Your task to perform on an android device: Open battery settings Image 0: 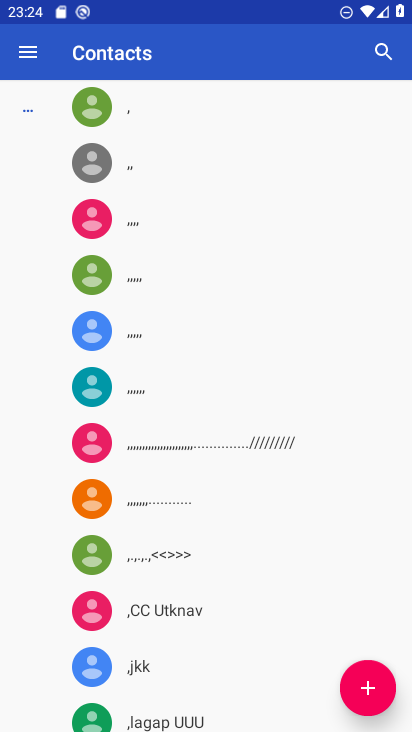
Step 0: press home button
Your task to perform on an android device: Open battery settings Image 1: 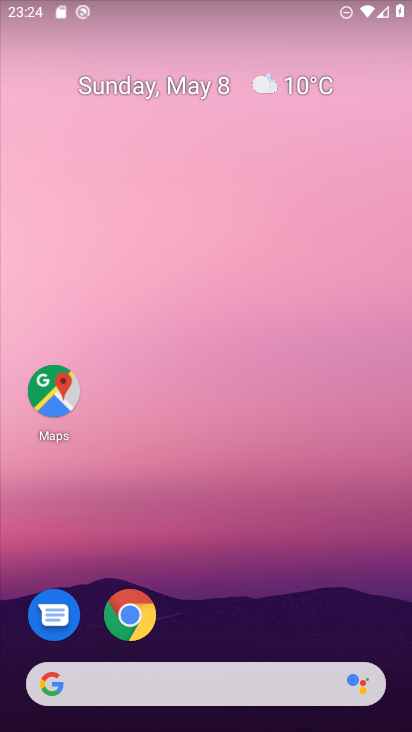
Step 1: drag from (230, 554) to (251, 2)
Your task to perform on an android device: Open battery settings Image 2: 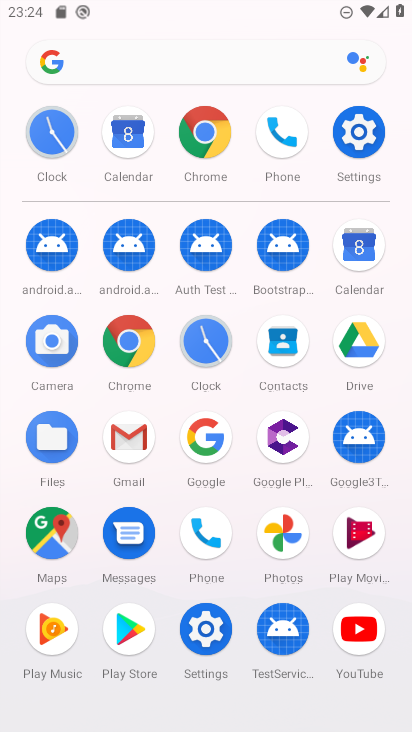
Step 2: click (370, 126)
Your task to perform on an android device: Open battery settings Image 3: 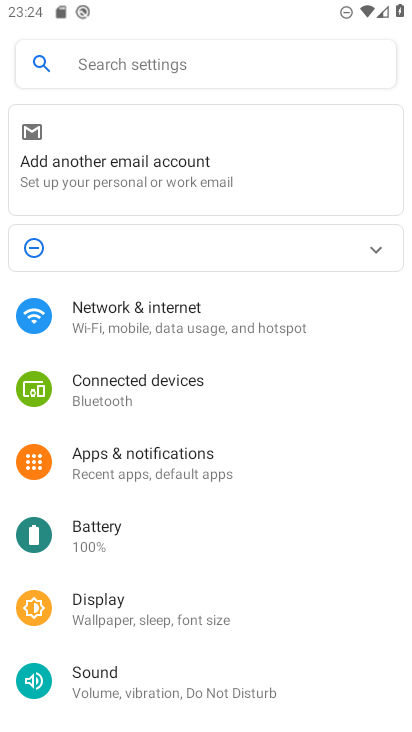
Step 3: click (146, 543)
Your task to perform on an android device: Open battery settings Image 4: 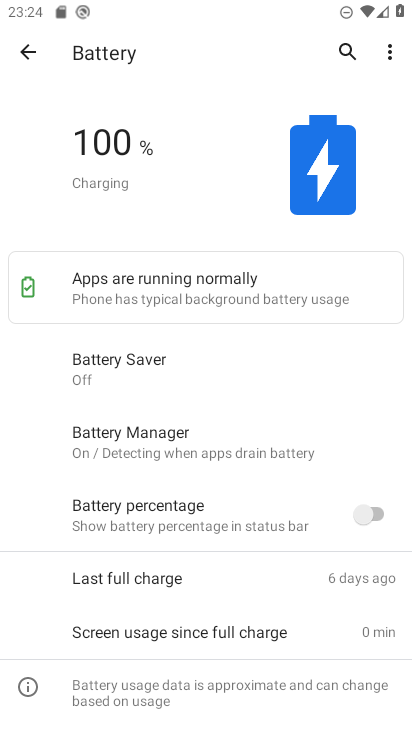
Step 4: task complete